Your task to perform on an android device: Set the phone to "Do not disturb". Image 0: 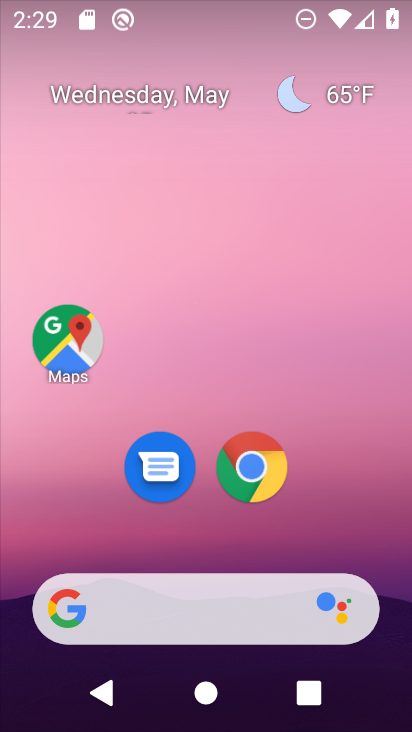
Step 0: drag from (203, 109) to (128, 422)
Your task to perform on an android device: Set the phone to "Do not disturb". Image 1: 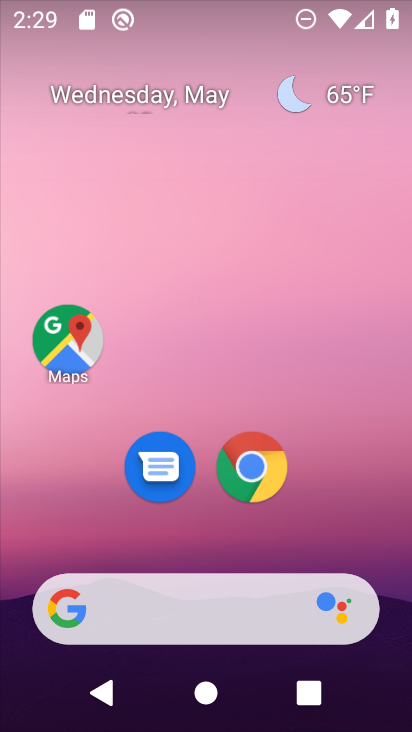
Step 1: drag from (169, 0) to (189, 333)
Your task to perform on an android device: Set the phone to "Do not disturb". Image 2: 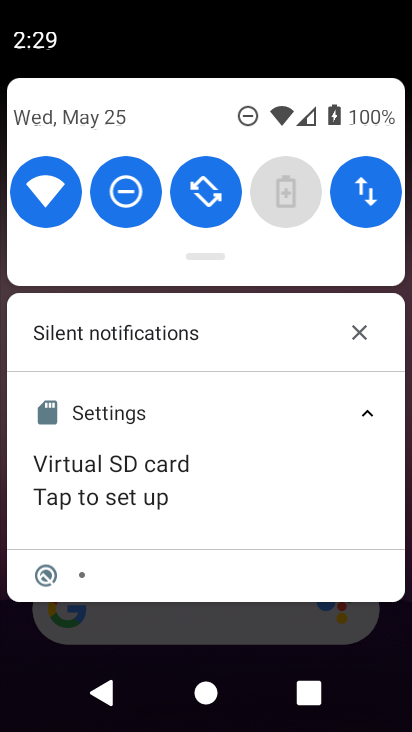
Step 2: click (136, 185)
Your task to perform on an android device: Set the phone to "Do not disturb". Image 3: 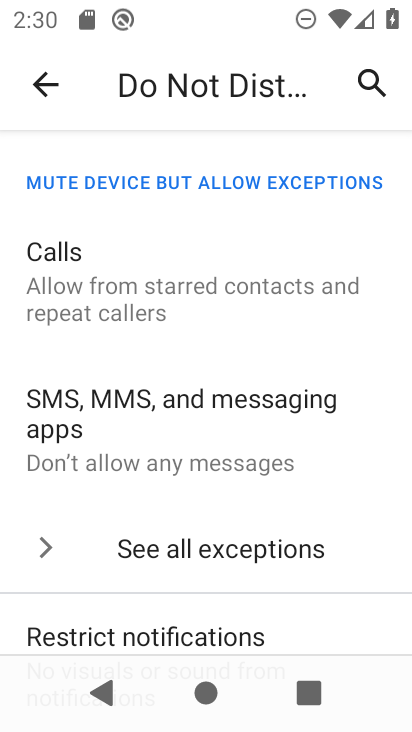
Step 3: task complete